Your task to perform on an android device: Go to accessibility settings Image 0: 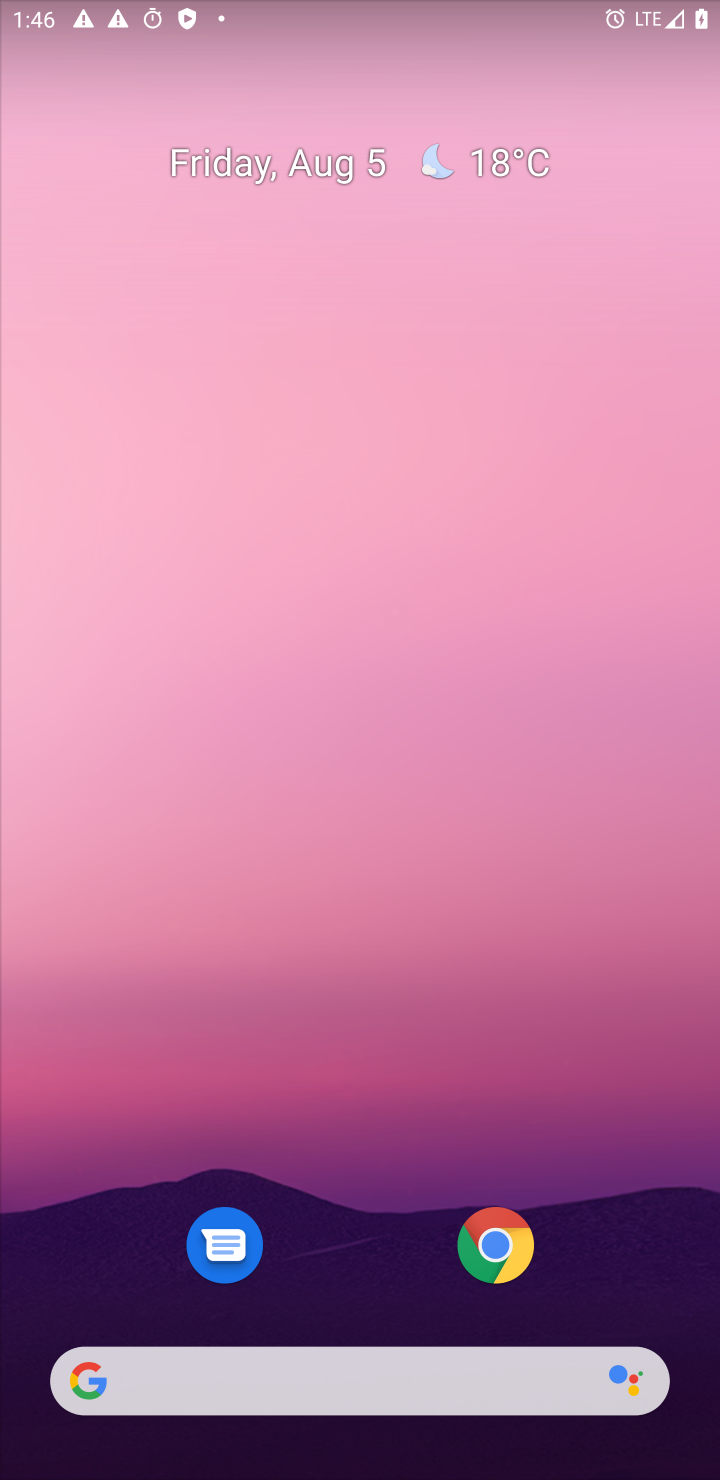
Step 0: press home button
Your task to perform on an android device: Go to accessibility settings Image 1: 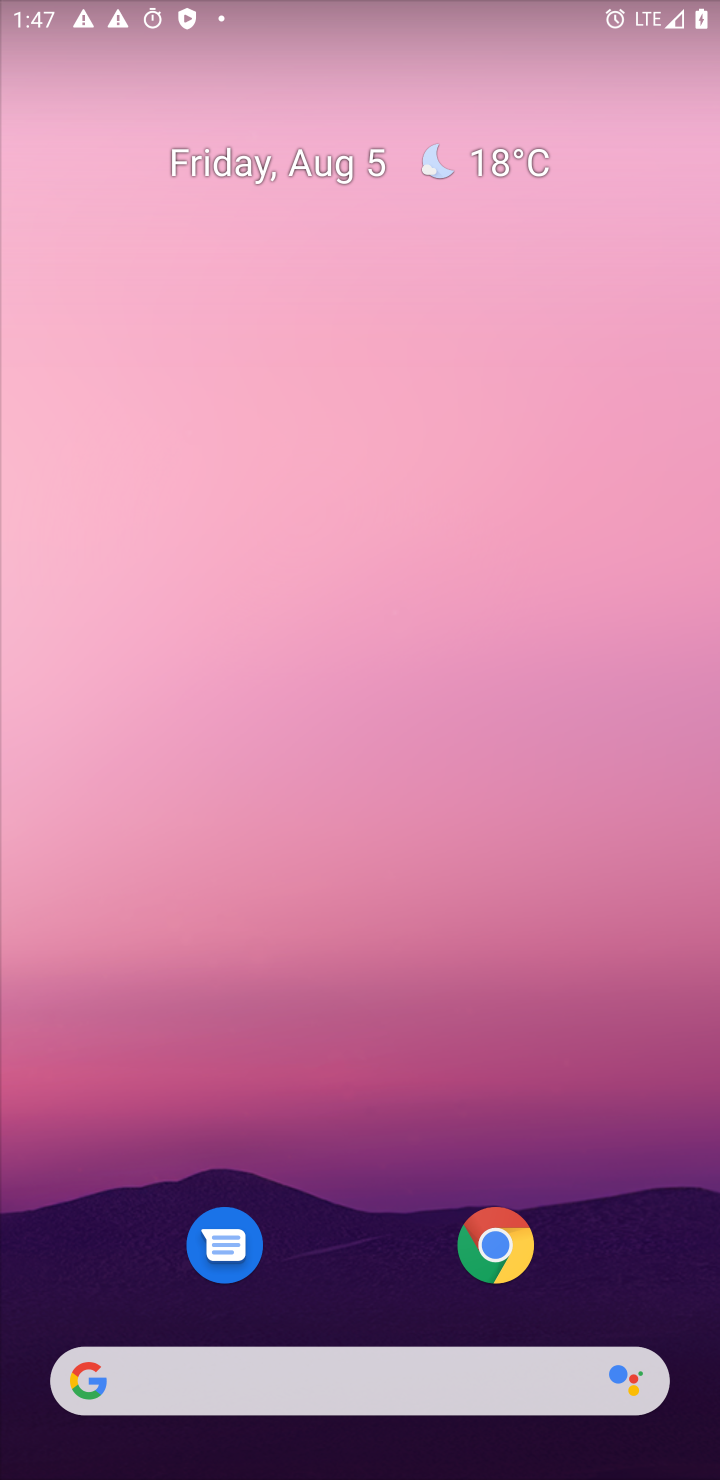
Step 1: drag from (397, 1260) to (581, 222)
Your task to perform on an android device: Go to accessibility settings Image 2: 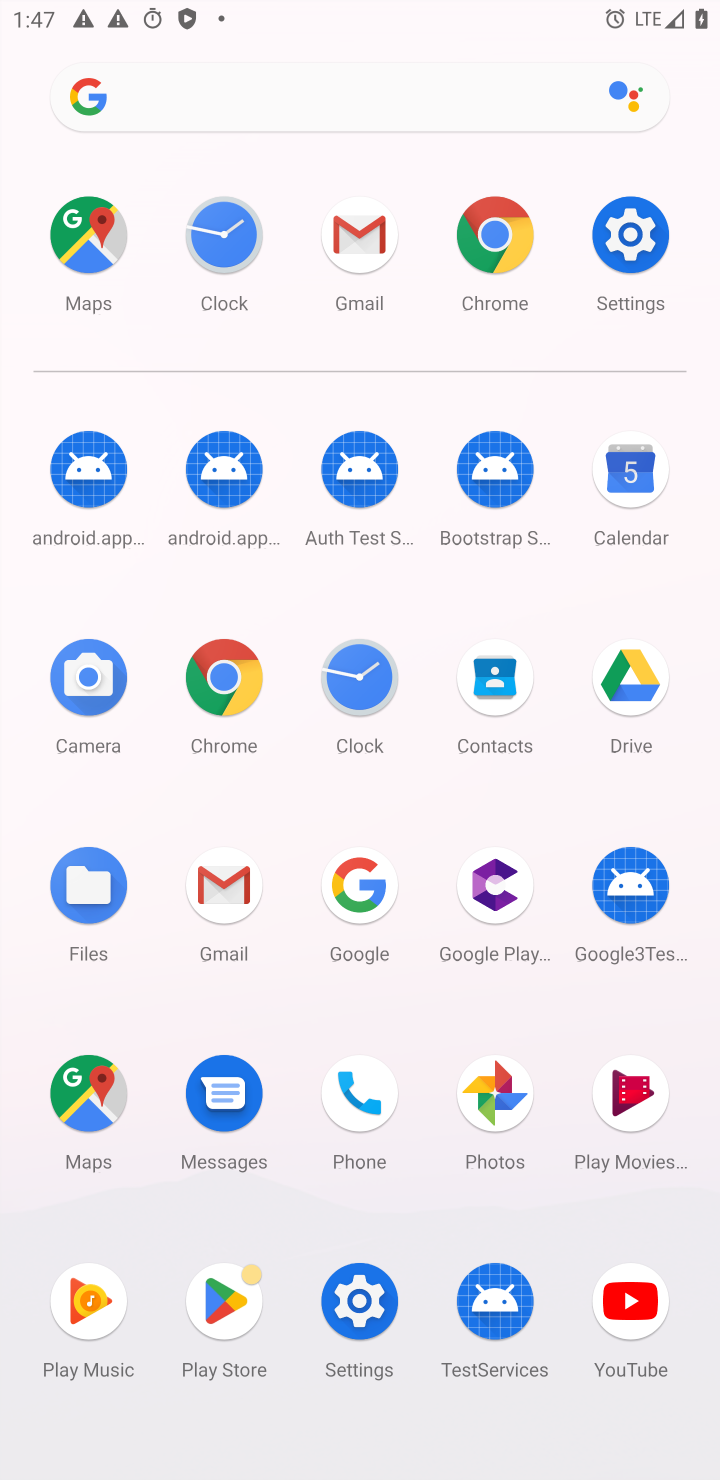
Step 2: click (652, 239)
Your task to perform on an android device: Go to accessibility settings Image 3: 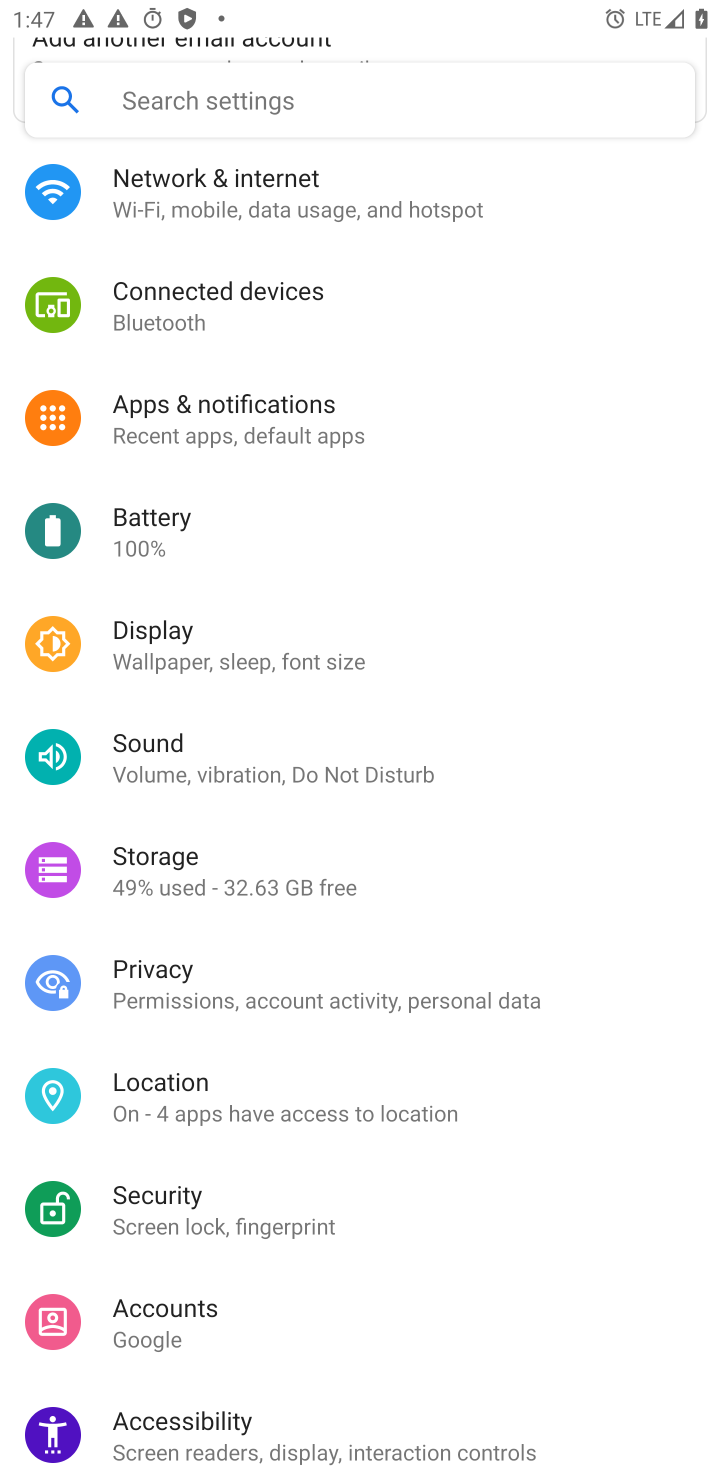
Step 3: click (173, 1420)
Your task to perform on an android device: Go to accessibility settings Image 4: 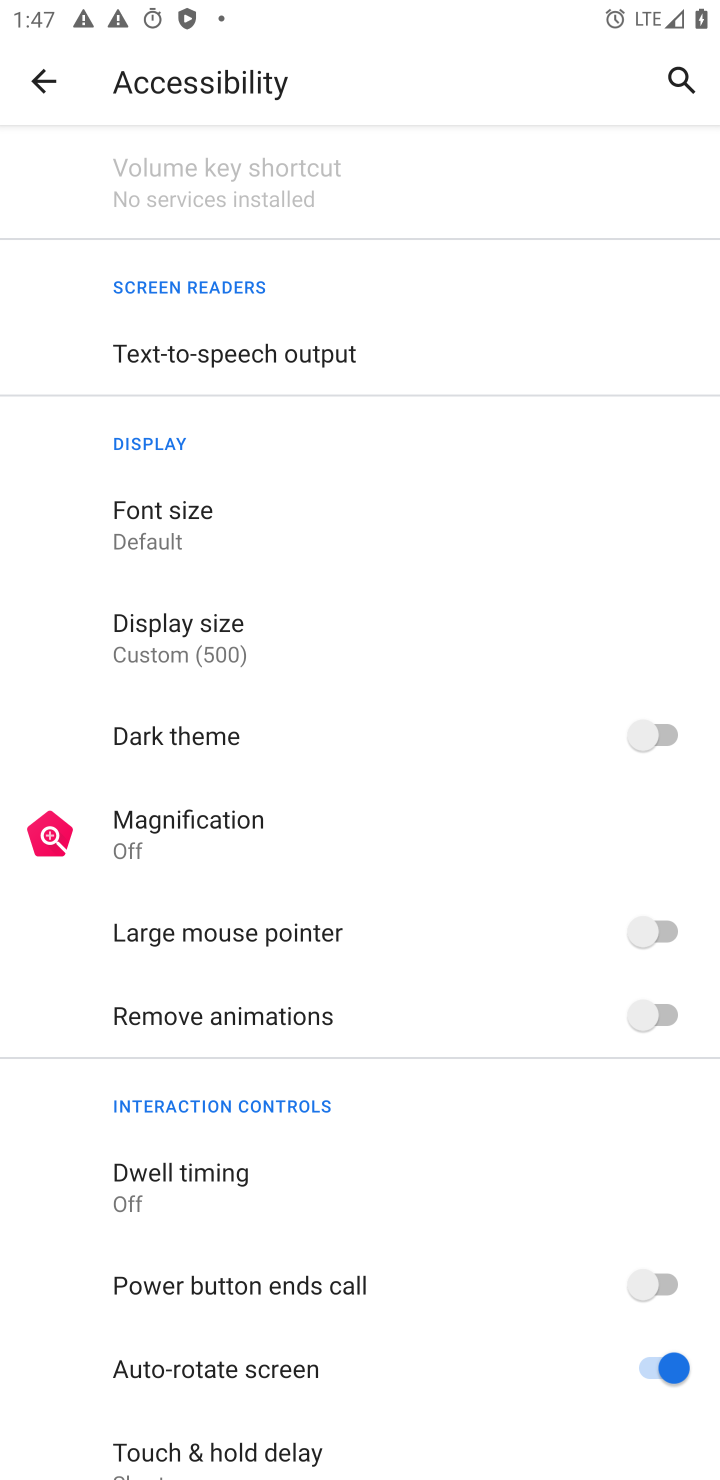
Step 4: task complete